Your task to perform on an android device: Open calendar and show me the second week of next month Image 0: 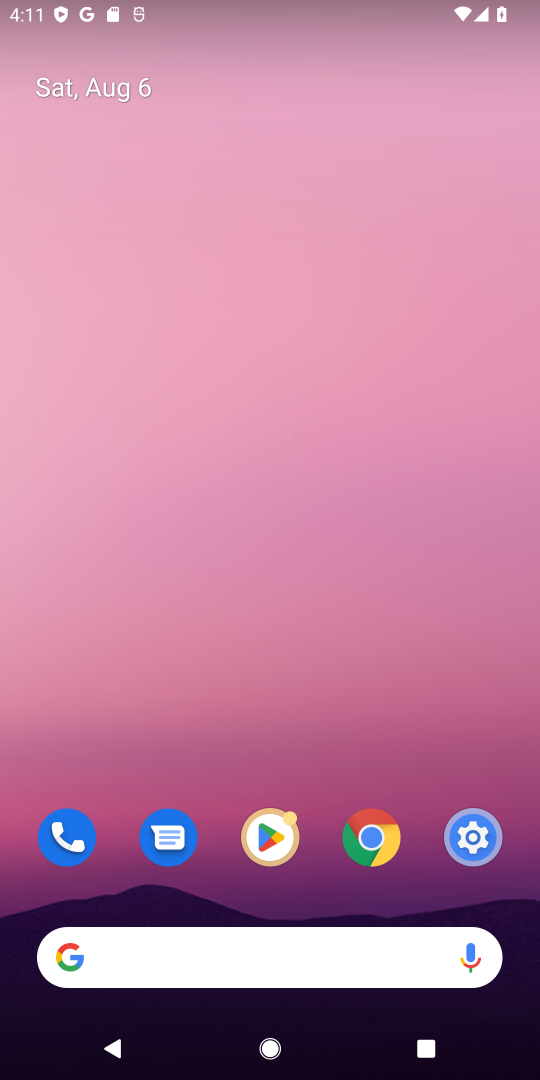
Step 0: drag from (430, 885) to (385, 188)
Your task to perform on an android device: Open calendar and show me the second week of next month Image 1: 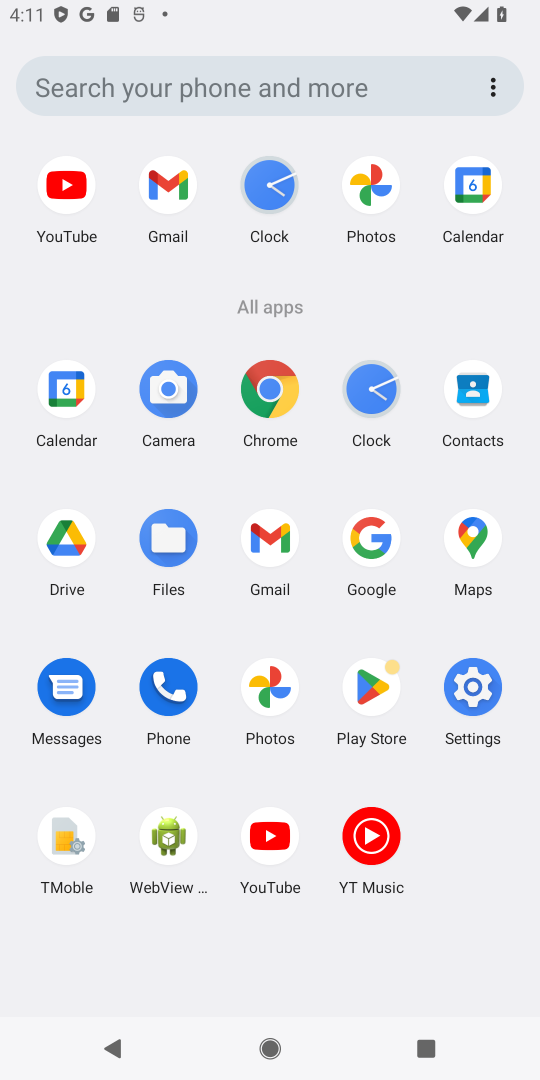
Step 1: click (65, 392)
Your task to perform on an android device: Open calendar and show me the second week of next month Image 2: 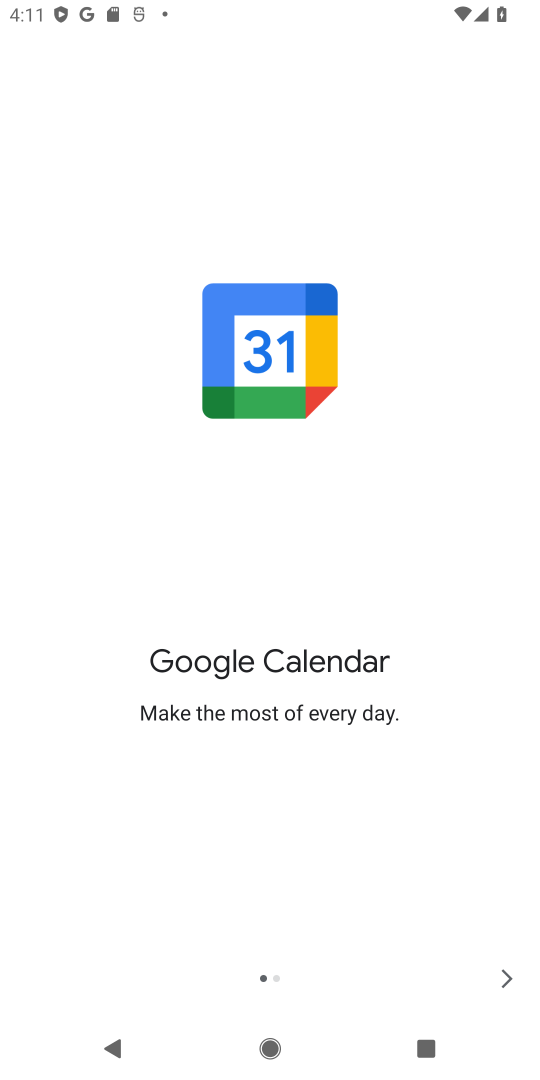
Step 2: click (507, 979)
Your task to perform on an android device: Open calendar and show me the second week of next month Image 3: 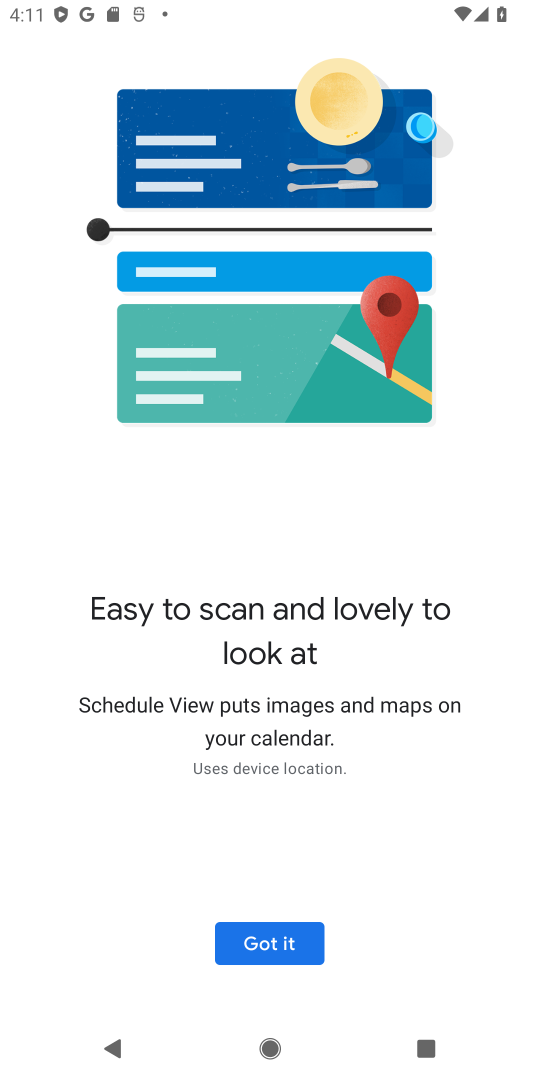
Step 3: click (266, 943)
Your task to perform on an android device: Open calendar and show me the second week of next month Image 4: 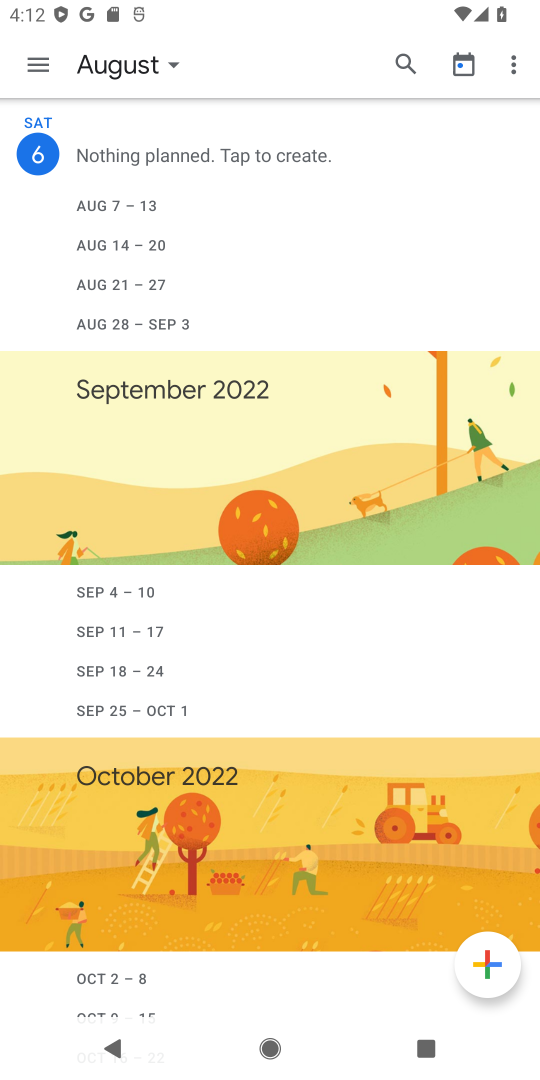
Step 4: click (32, 56)
Your task to perform on an android device: Open calendar and show me the second week of next month Image 5: 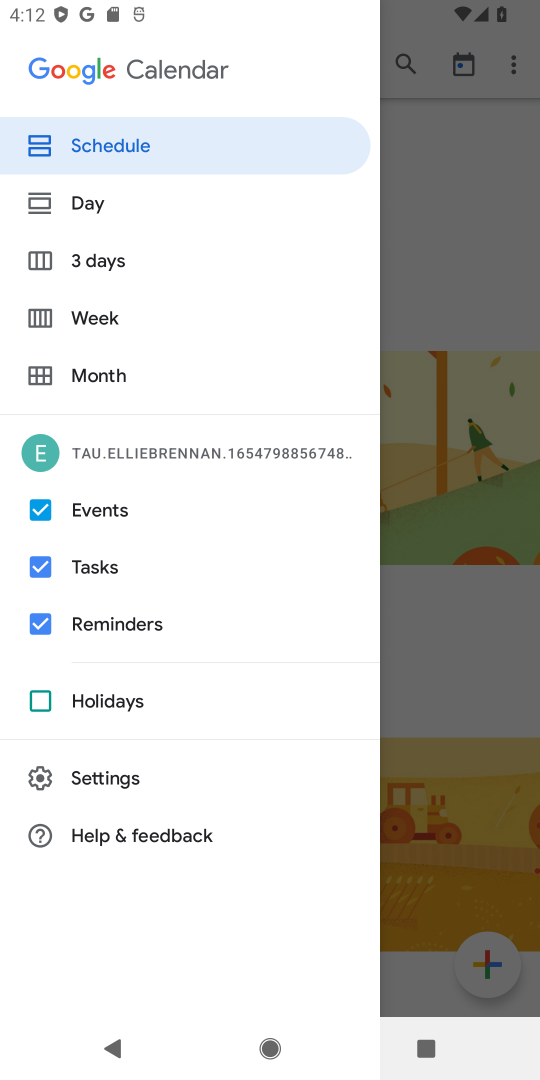
Step 5: click (102, 315)
Your task to perform on an android device: Open calendar and show me the second week of next month Image 6: 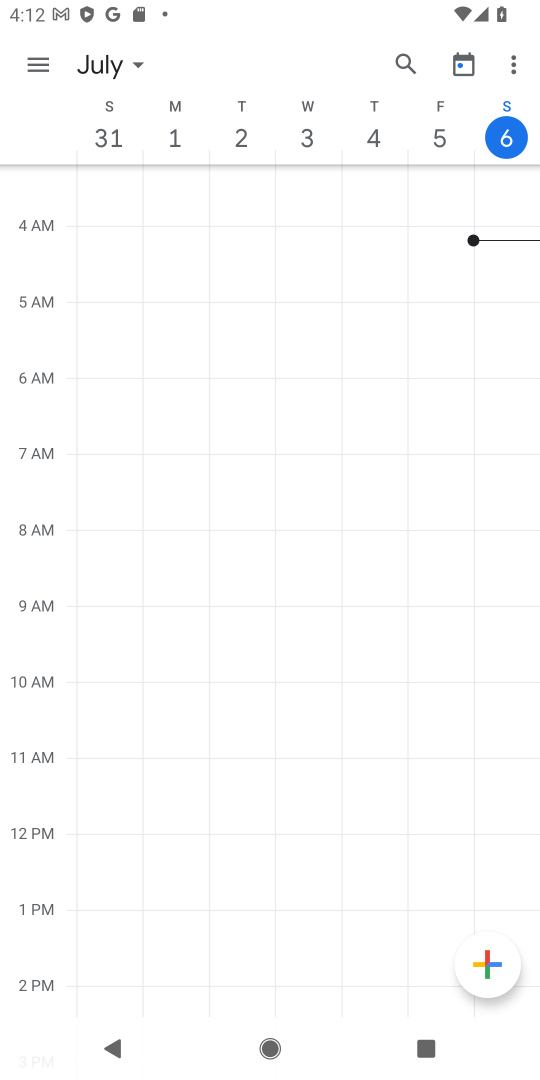
Step 6: click (138, 66)
Your task to perform on an android device: Open calendar and show me the second week of next month Image 7: 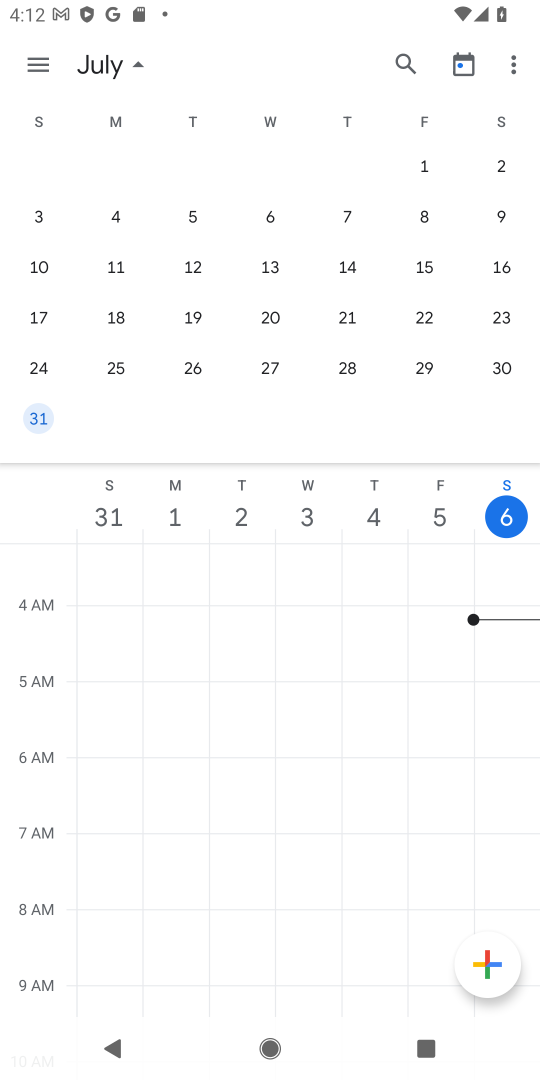
Step 7: drag from (492, 336) to (11, 296)
Your task to perform on an android device: Open calendar and show me the second week of next month Image 8: 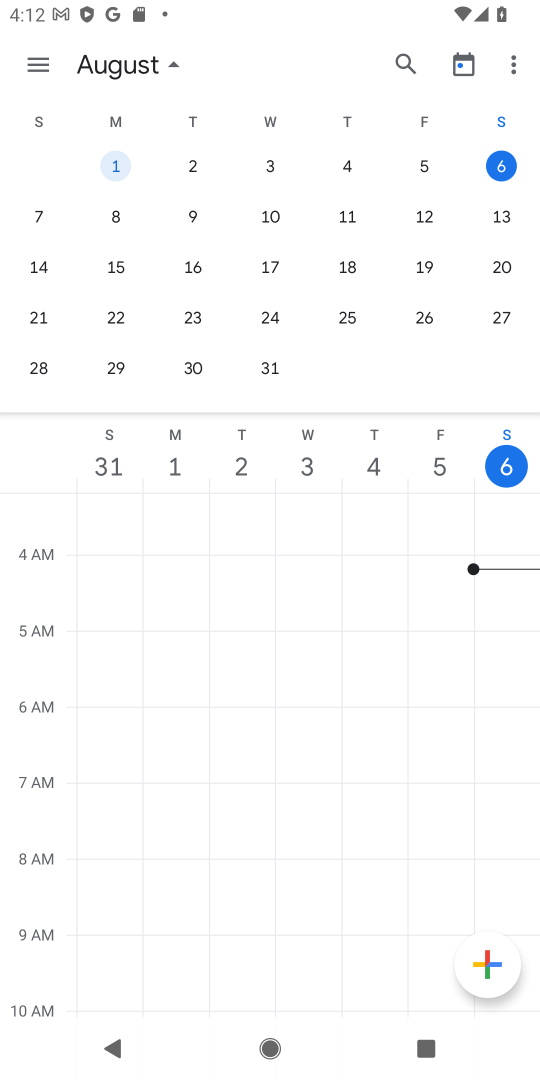
Step 8: drag from (498, 303) to (1, 274)
Your task to perform on an android device: Open calendar and show me the second week of next month Image 9: 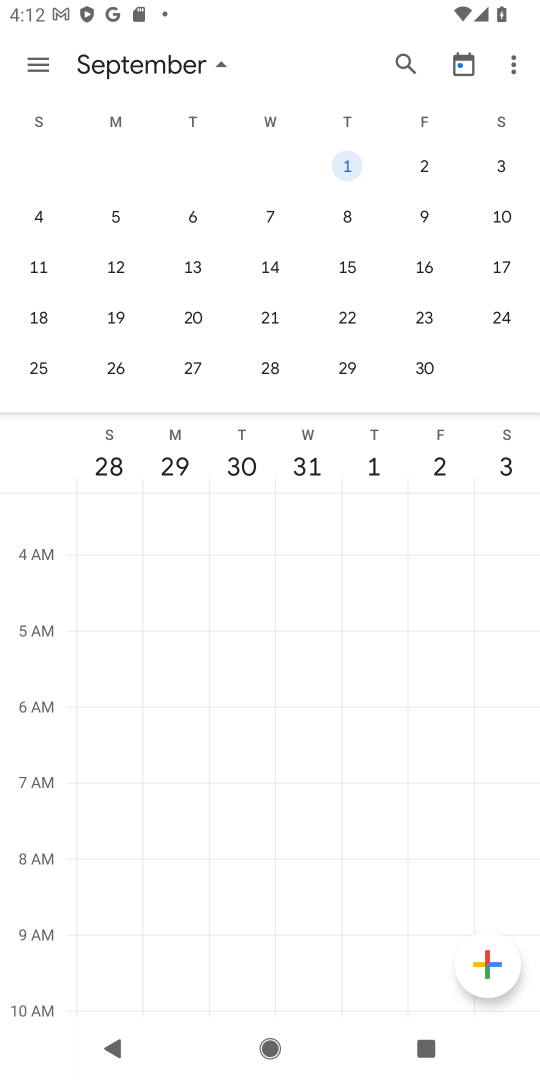
Step 9: click (41, 263)
Your task to perform on an android device: Open calendar and show me the second week of next month Image 10: 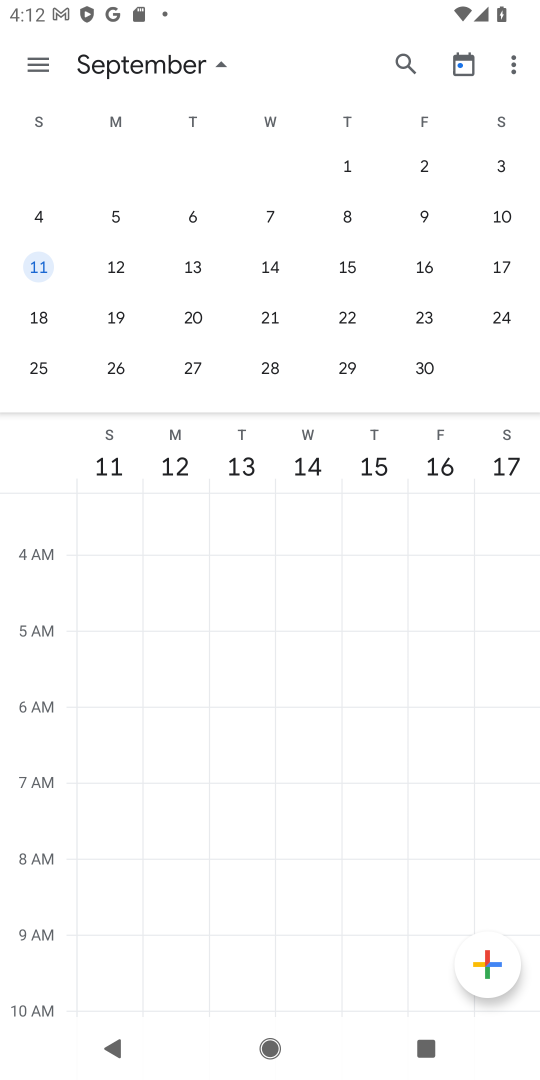
Step 10: task complete